Your task to perform on an android device: When is my next meeting? Image 0: 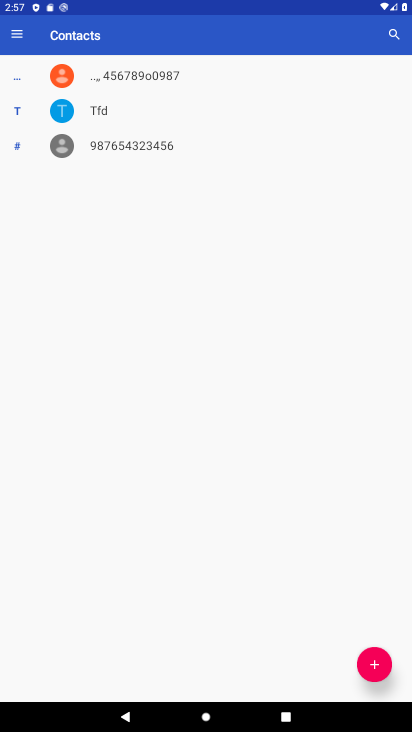
Step 0: press home button
Your task to perform on an android device: When is my next meeting? Image 1: 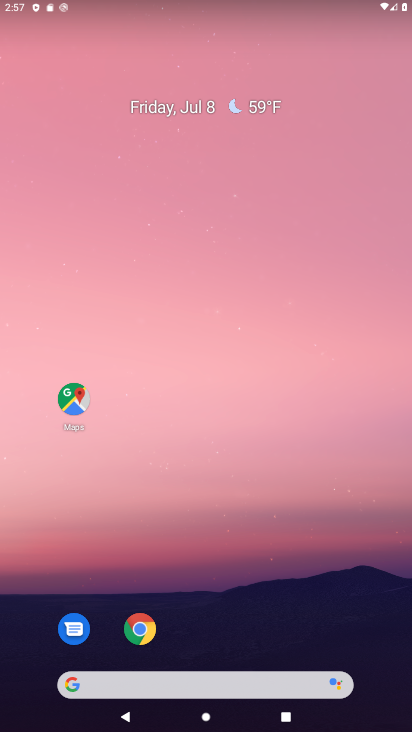
Step 1: drag from (219, 654) to (253, 154)
Your task to perform on an android device: When is my next meeting? Image 2: 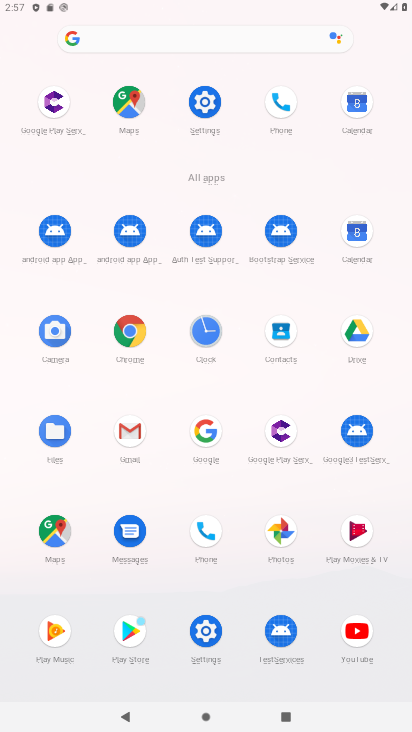
Step 2: click (355, 229)
Your task to perform on an android device: When is my next meeting? Image 3: 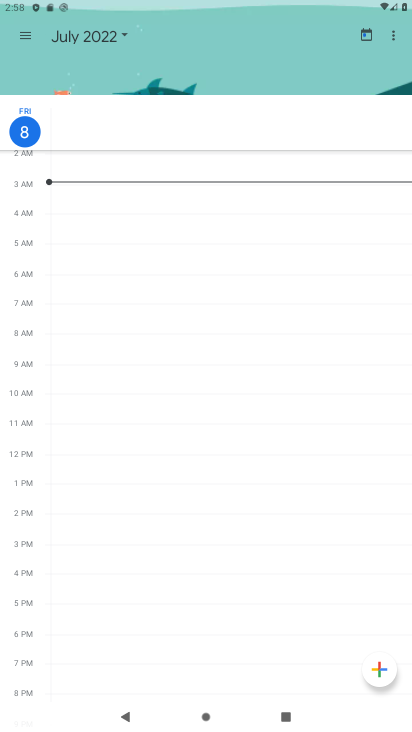
Step 3: click (33, 116)
Your task to perform on an android device: When is my next meeting? Image 4: 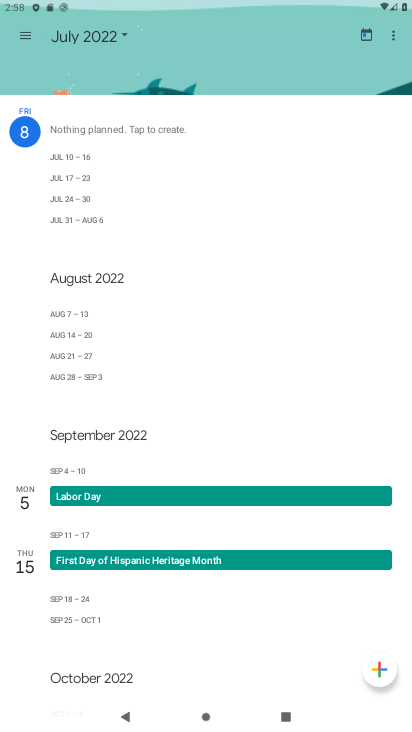
Step 4: task complete